Your task to perform on an android device: Go to sound settings Image 0: 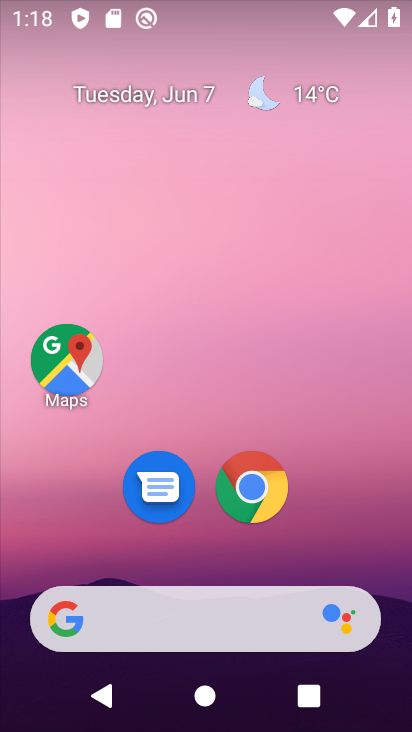
Step 0: drag from (223, 570) to (159, 95)
Your task to perform on an android device: Go to sound settings Image 1: 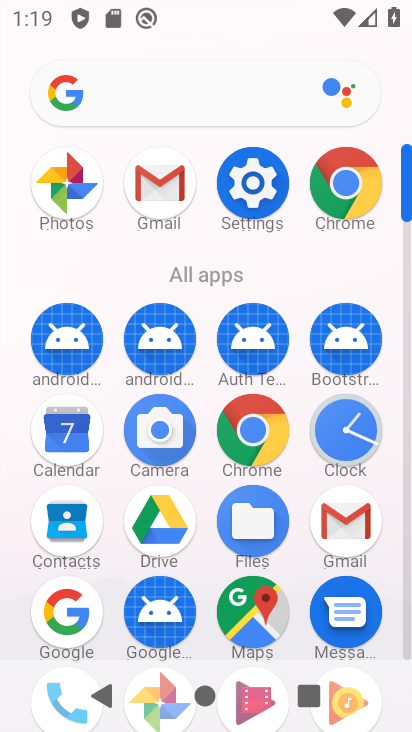
Step 1: click (260, 186)
Your task to perform on an android device: Go to sound settings Image 2: 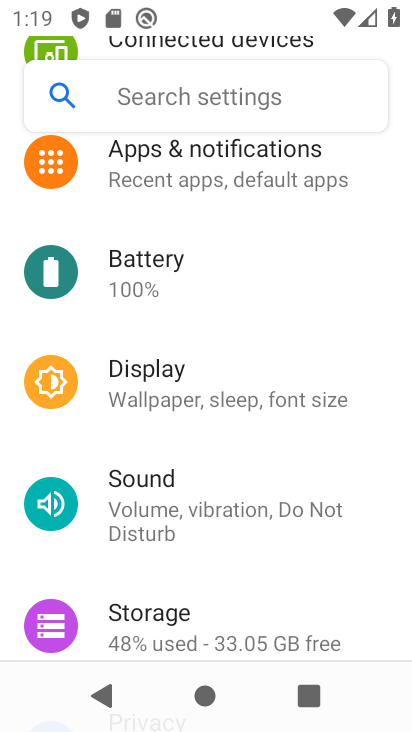
Step 2: click (214, 488)
Your task to perform on an android device: Go to sound settings Image 3: 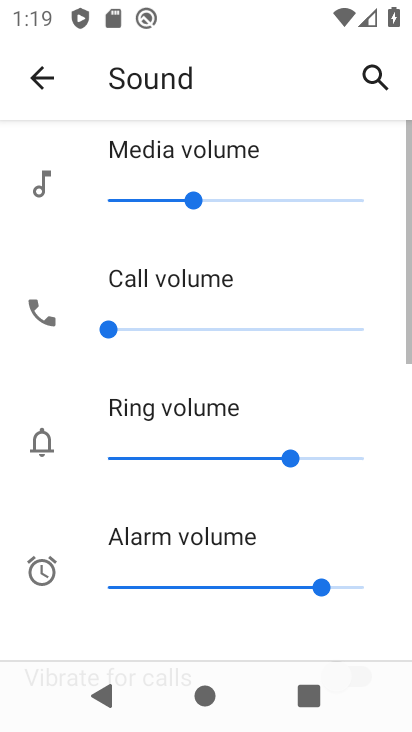
Step 3: task complete